Your task to perform on an android device: Check the weather Image 0: 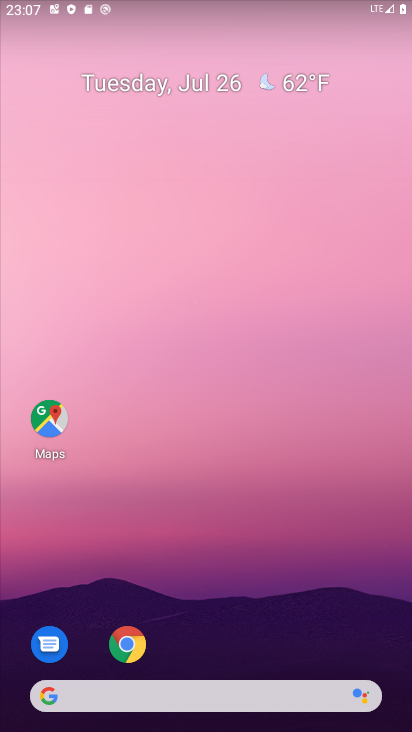
Step 0: click (159, 698)
Your task to perform on an android device: Check the weather Image 1: 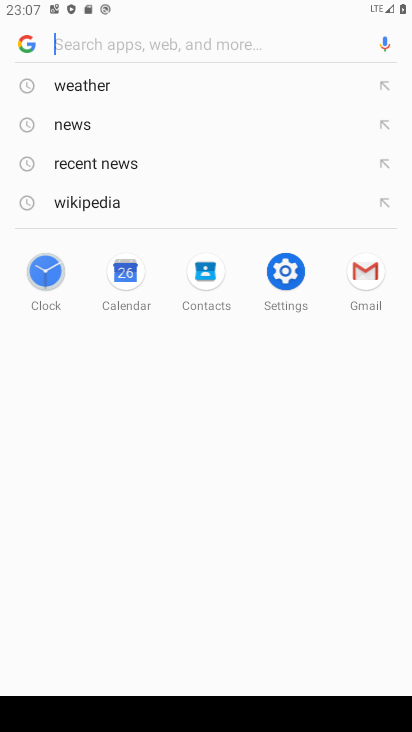
Step 1: click (80, 95)
Your task to perform on an android device: Check the weather Image 2: 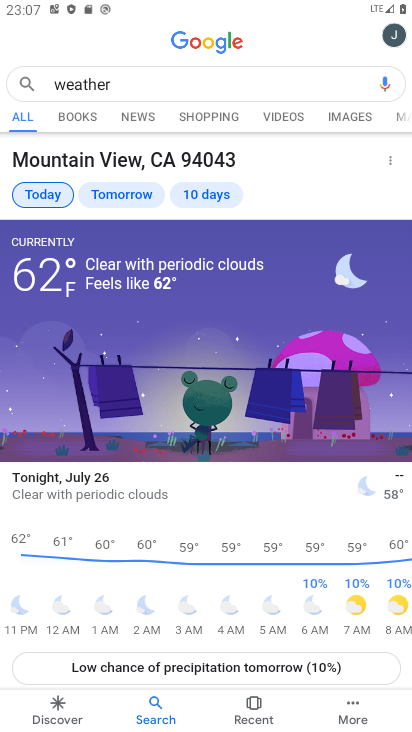
Step 2: task complete